Your task to perform on an android device: toggle improve location accuracy Image 0: 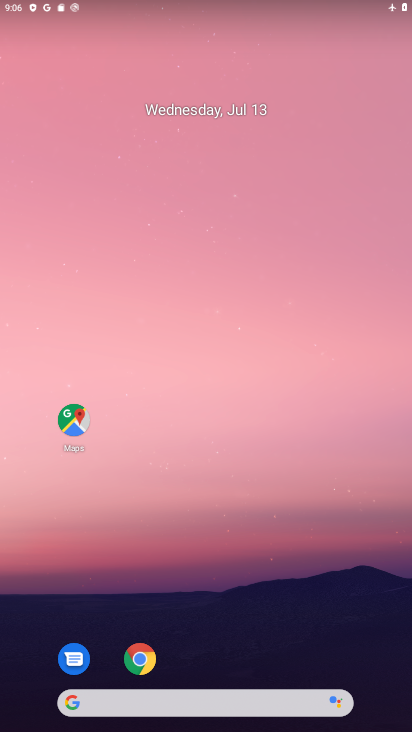
Step 0: drag from (248, 595) to (277, 2)
Your task to perform on an android device: toggle improve location accuracy Image 1: 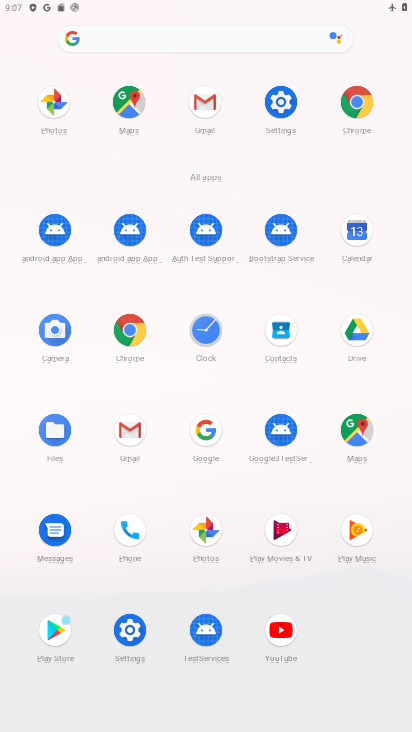
Step 1: click (283, 96)
Your task to perform on an android device: toggle improve location accuracy Image 2: 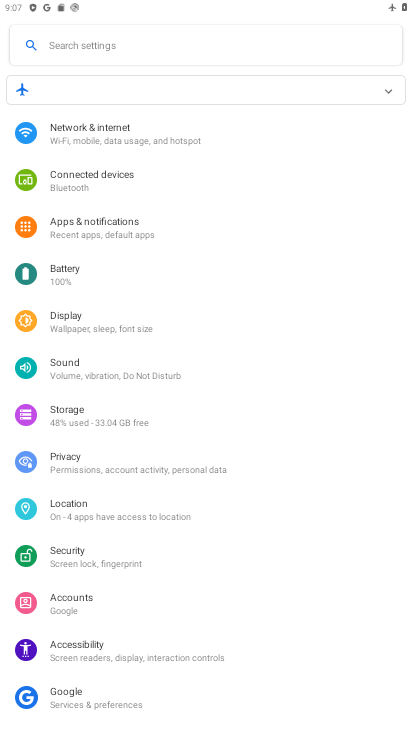
Step 2: click (86, 510)
Your task to perform on an android device: toggle improve location accuracy Image 3: 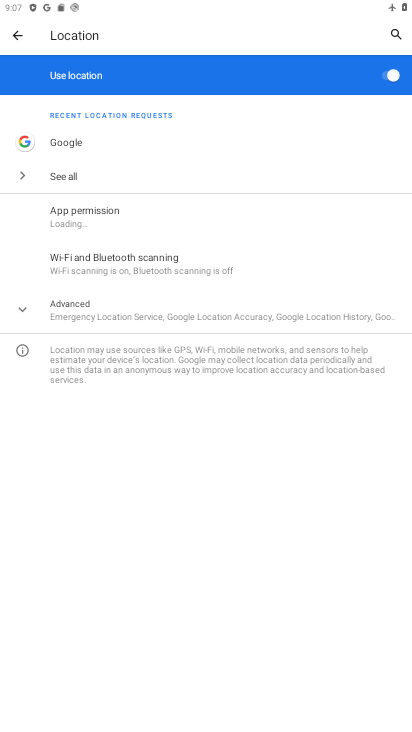
Step 3: click (93, 313)
Your task to perform on an android device: toggle improve location accuracy Image 4: 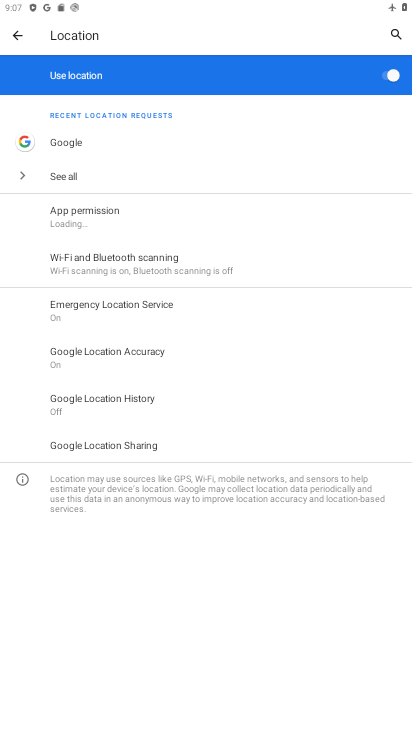
Step 4: click (125, 351)
Your task to perform on an android device: toggle improve location accuracy Image 5: 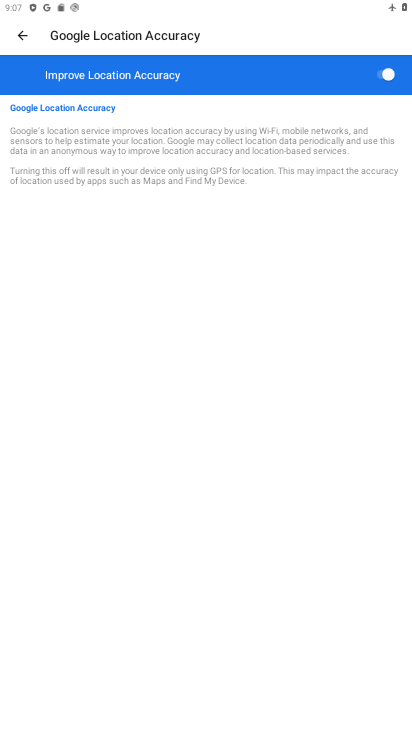
Step 5: click (388, 73)
Your task to perform on an android device: toggle improve location accuracy Image 6: 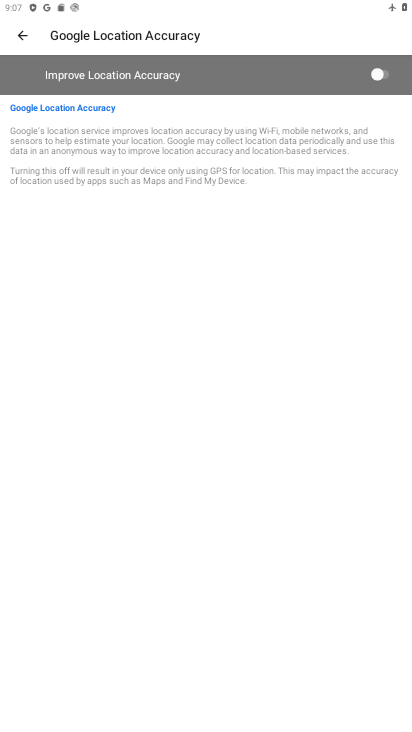
Step 6: task complete